Your task to perform on an android device: delete the emails in spam in the gmail app Image 0: 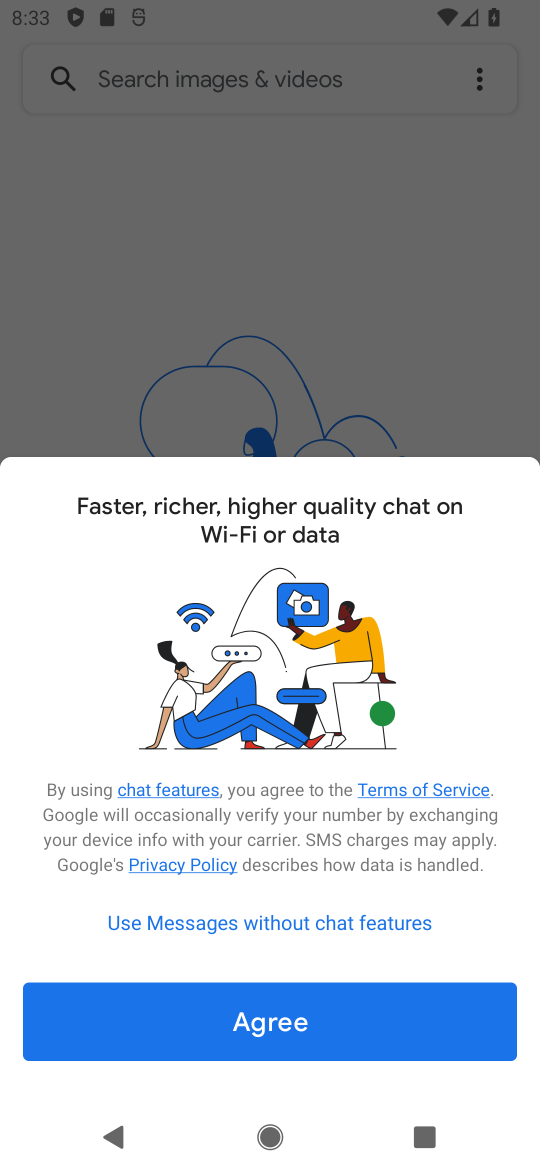
Step 0: press home button
Your task to perform on an android device: delete the emails in spam in the gmail app Image 1: 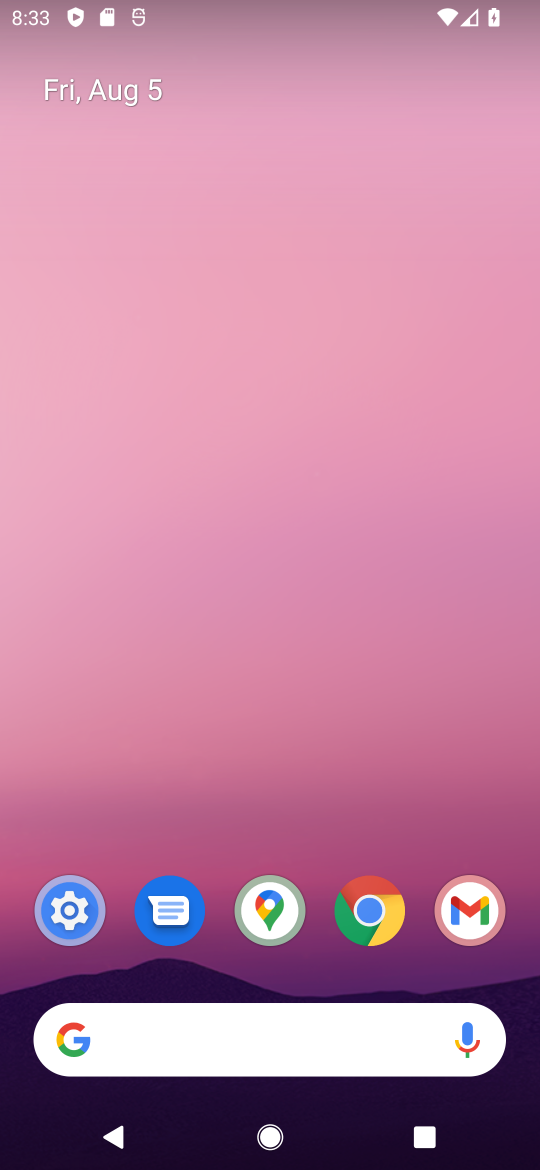
Step 1: drag from (200, 1013) to (398, 147)
Your task to perform on an android device: delete the emails in spam in the gmail app Image 2: 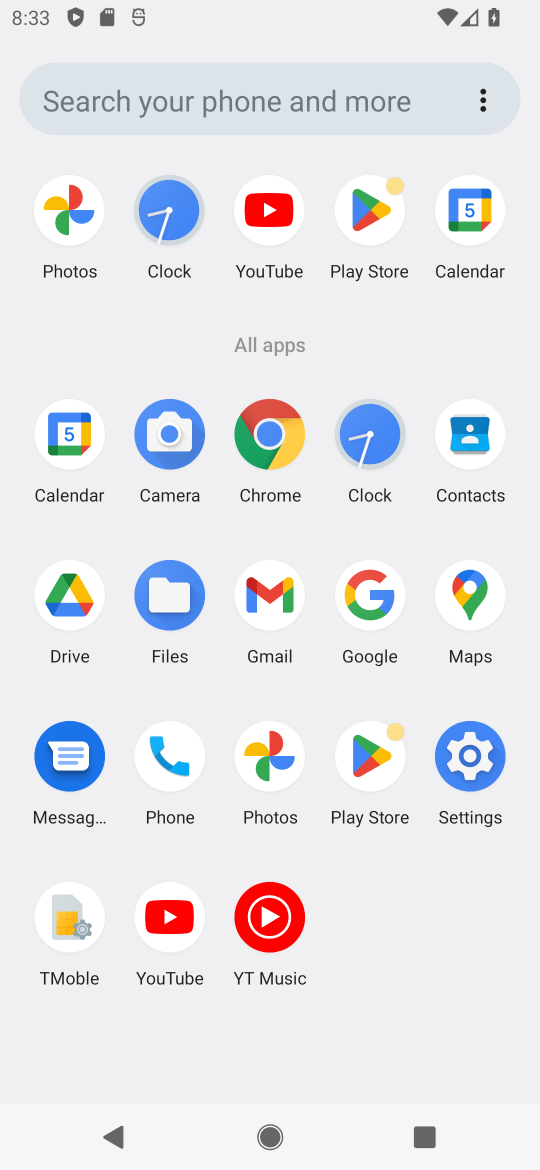
Step 2: click (269, 586)
Your task to perform on an android device: delete the emails in spam in the gmail app Image 3: 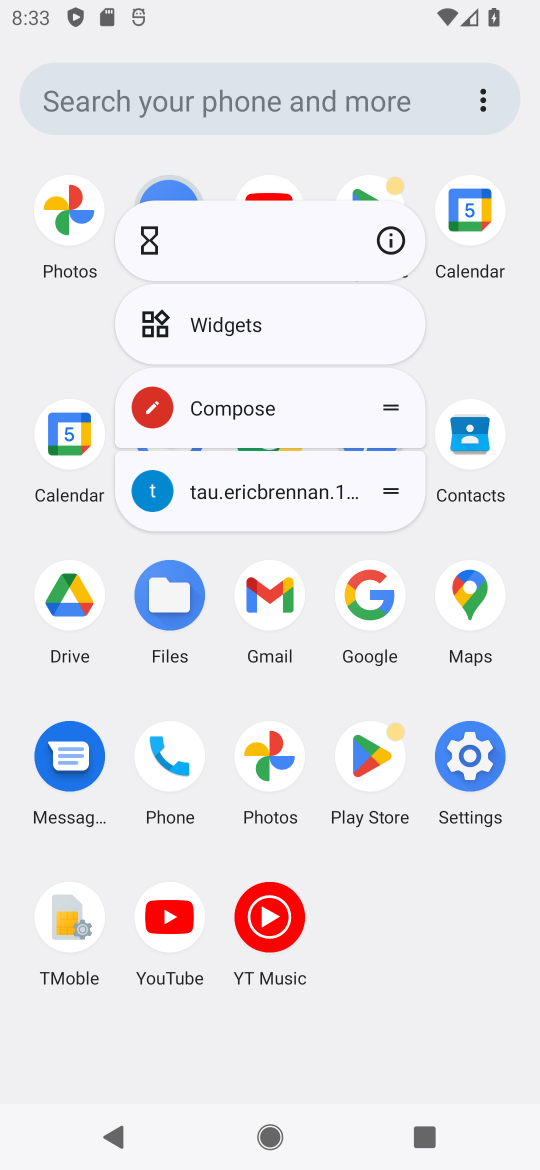
Step 3: click (266, 599)
Your task to perform on an android device: delete the emails in spam in the gmail app Image 4: 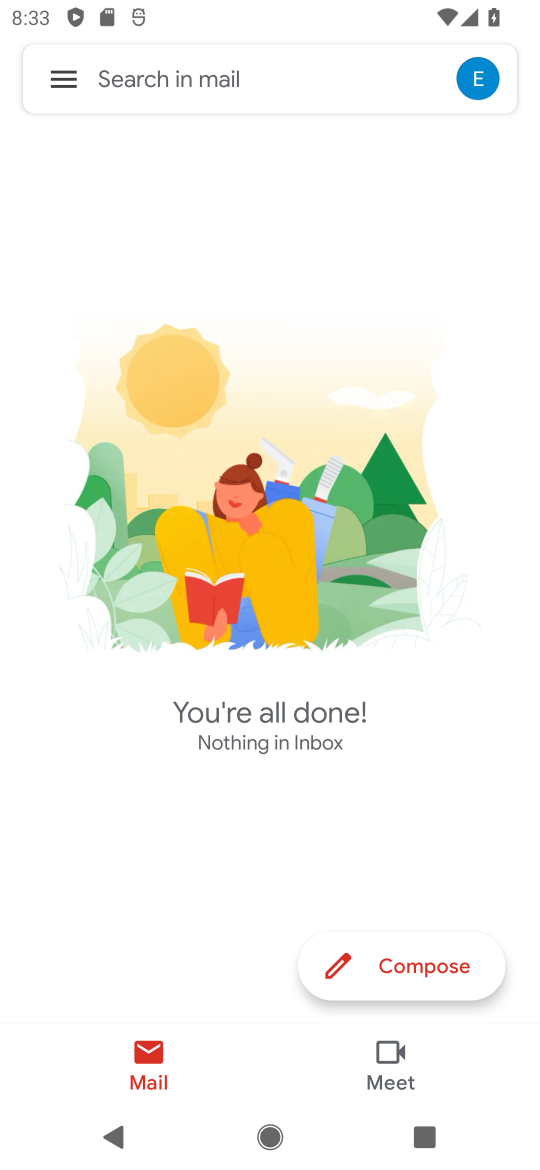
Step 4: click (68, 80)
Your task to perform on an android device: delete the emails in spam in the gmail app Image 5: 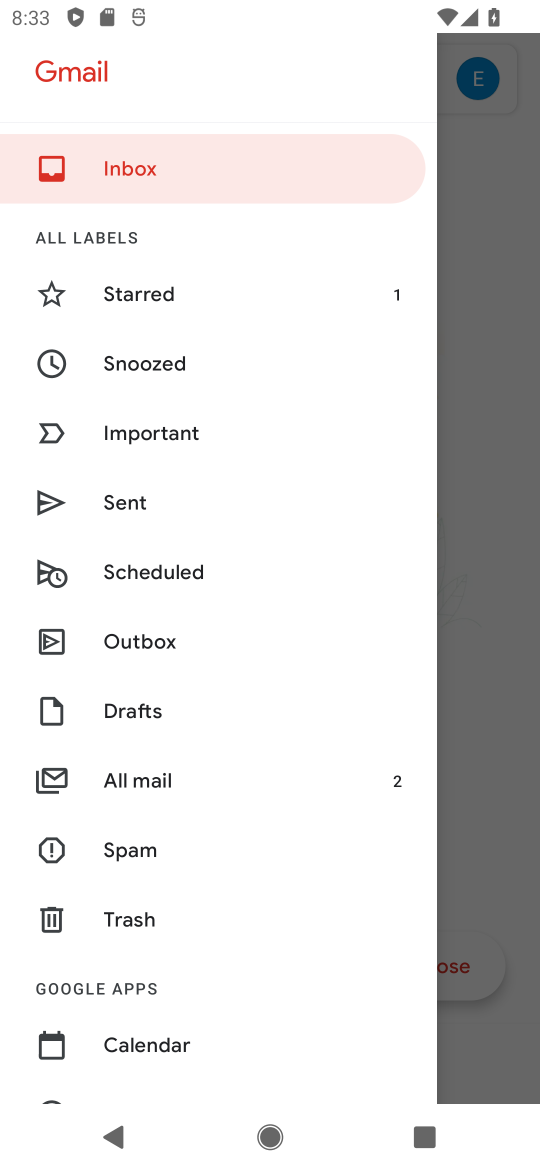
Step 5: click (129, 850)
Your task to perform on an android device: delete the emails in spam in the gmail app Image 6: 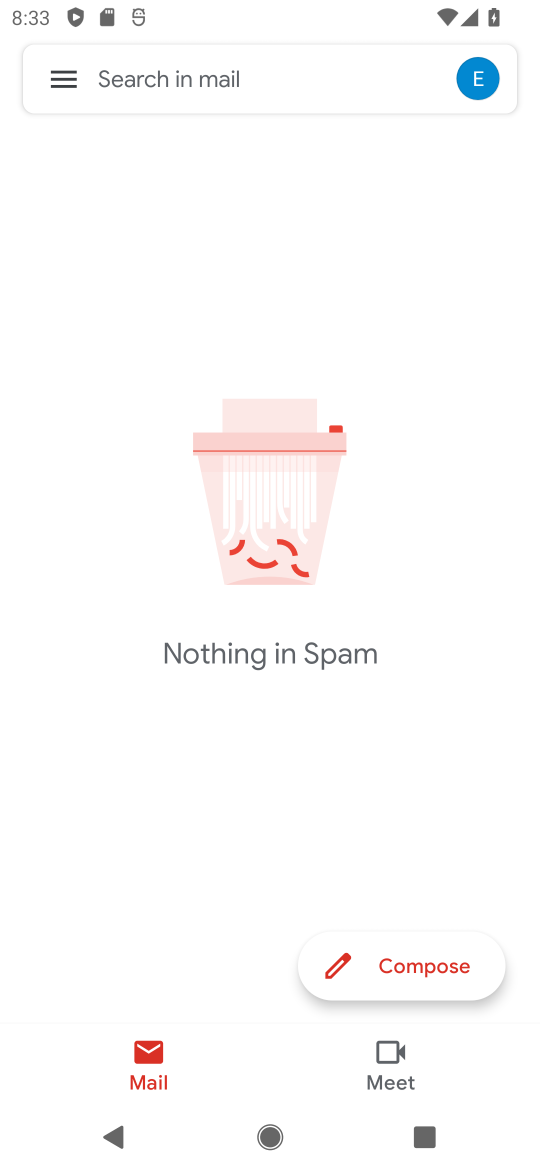
Step 6: task complete